Your task to perform on an android device: Open the stopwatch Image 0: 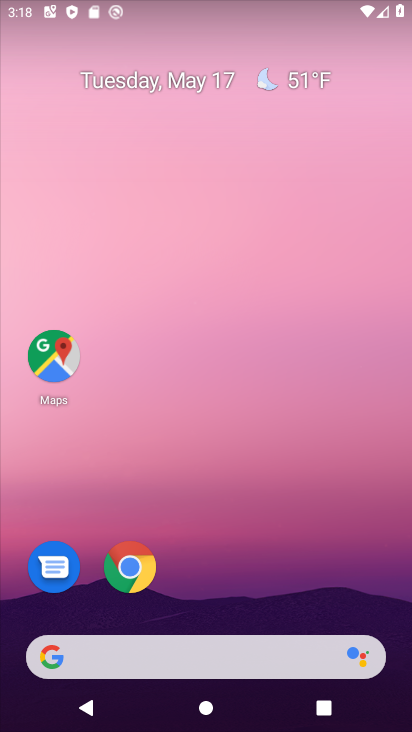
Step 0: drag from (201, 644) to (239, 140)
Your task to perform on an android device: Open the stopwatch Image 1: 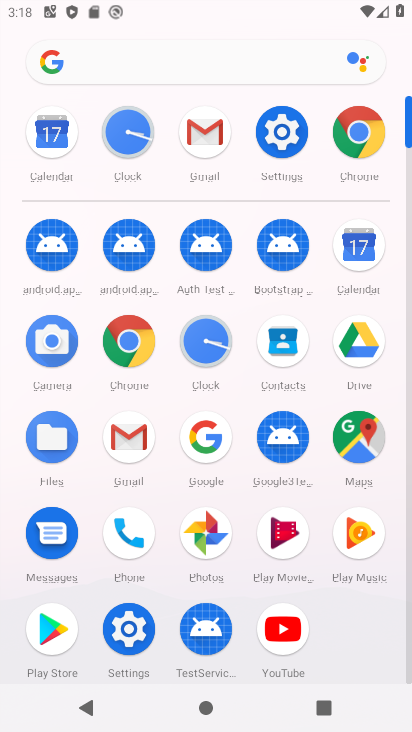
Step 1: click (200, 346)
Your task to perform on an android device: Open the stopwatch Image 2: 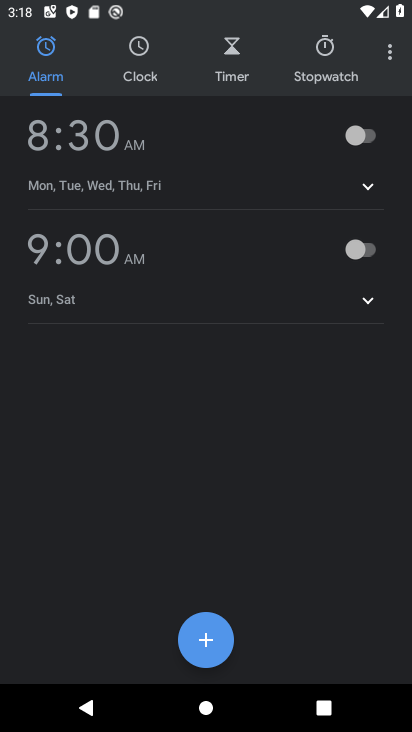
Step 2: click (310, 50)
Your task to perform on an android device: Open the stopwatch Image 3: 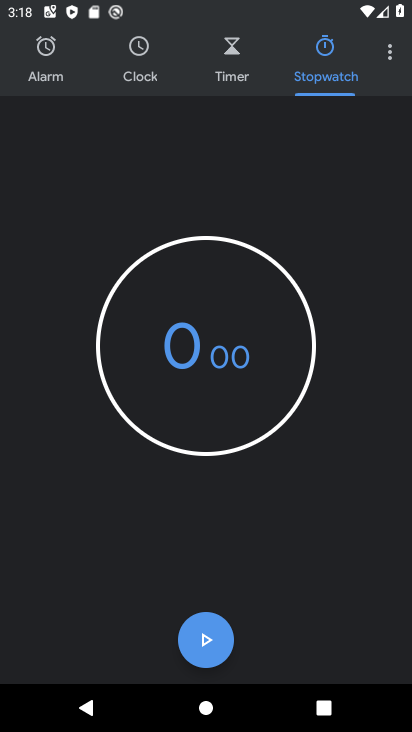
Step 3: task complete